Your task to perform on an android device: turn off location history Image 0: 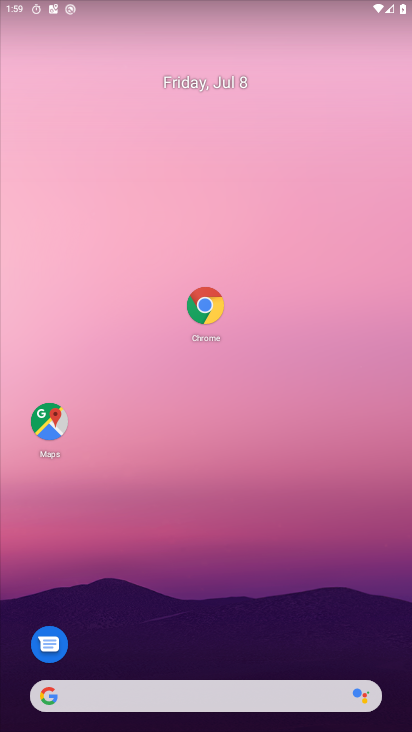
Step 0: drag from (243, 698) to (291, 368)
Your task to perform on an android device: turn off location history Image 1: 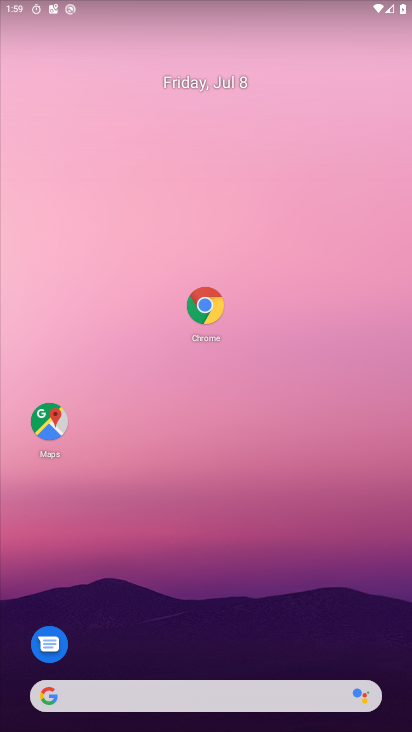
Step 1: drag from (201, 676) to (200, 273)
Your task to perform on an android device: turn off location history Image 2: 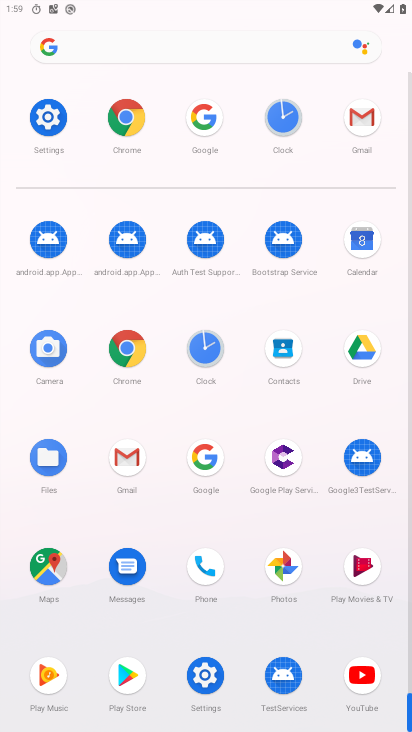
Step 2: click (214, 677)
Your task to perform on an android device: turn off location history Image 3: 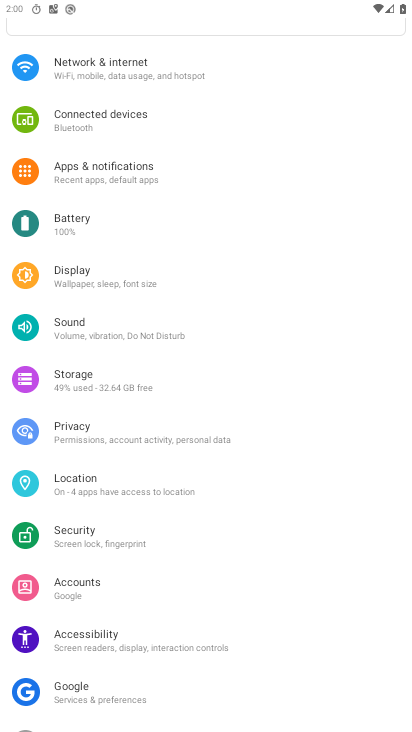
Step 3: click (92, 489)
Your task to perform on an android device: turn off location history Image 4: 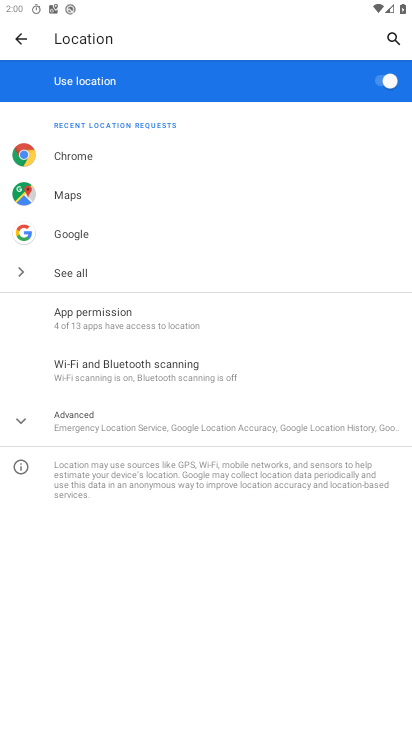
Step 4: click (67, 415)
Your task to perform on an android device: turn off location history Image 5: 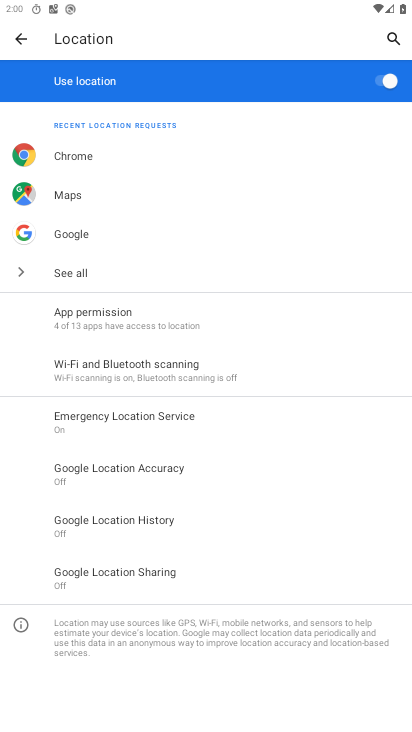
Step 5: click (117, 527)
Your task to perform on an android device: turn off location history Image 6: 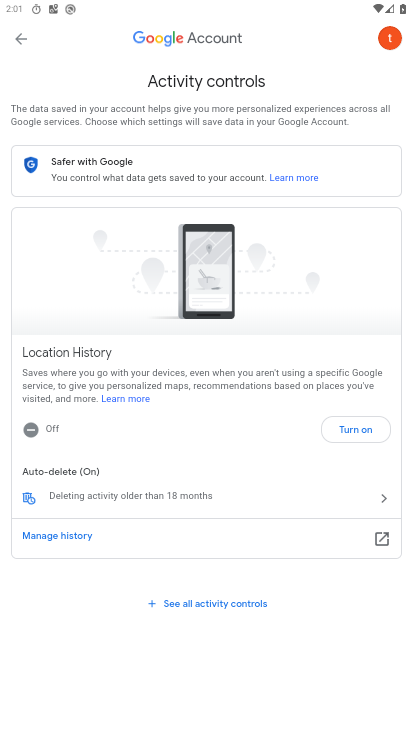
Step 6: task complete